Your task to perform on an android device: snooze an email in the gmail app Image 0: 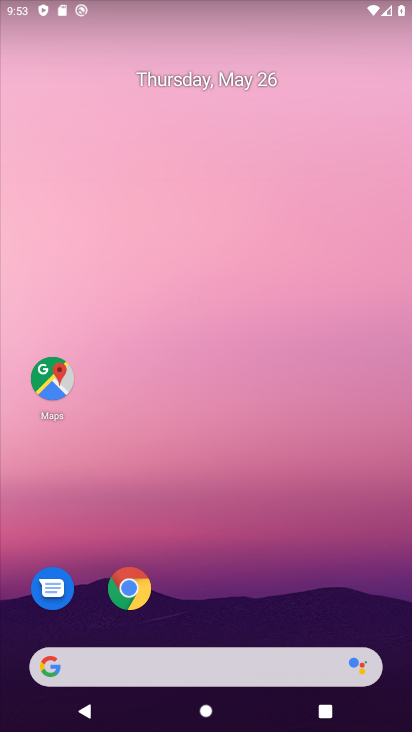
Step 0: drag from (207, 552) to (204, 132)
Your task to perform on an android device: snooze an email in the gmail app Image 1: 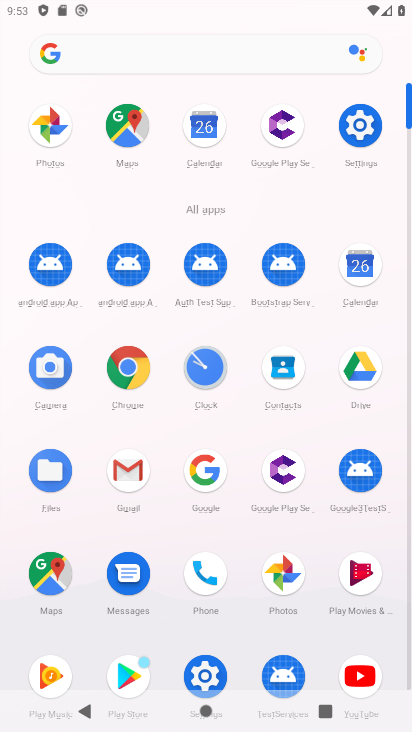
Step 1: click (143, 477)
Your task to perform on an android device: snooze an email in the gmail app Image 2: 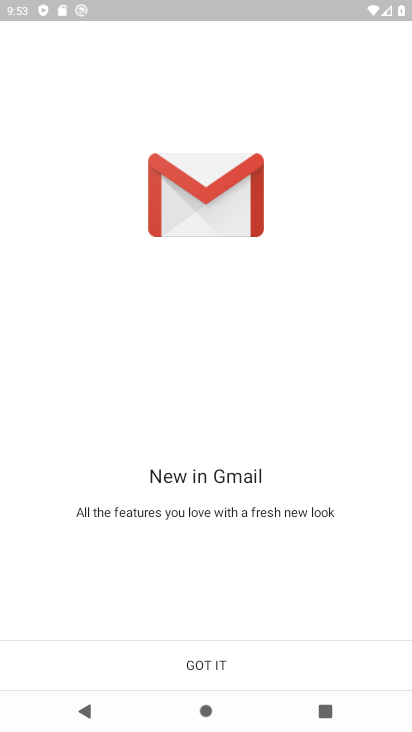
Step 2: click (192, 664)
Your task to perform on an android device: snooze an email in the gmail app Image 3: 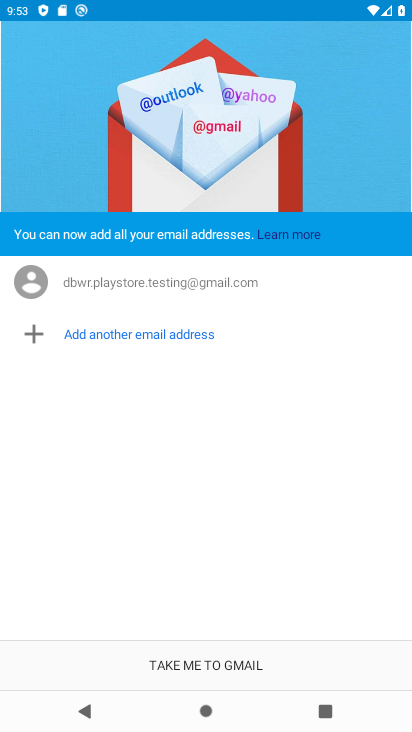
Step 3: click (192, 664)
Your task to perform on an android device: snooze an email in the gmail app Image 4: 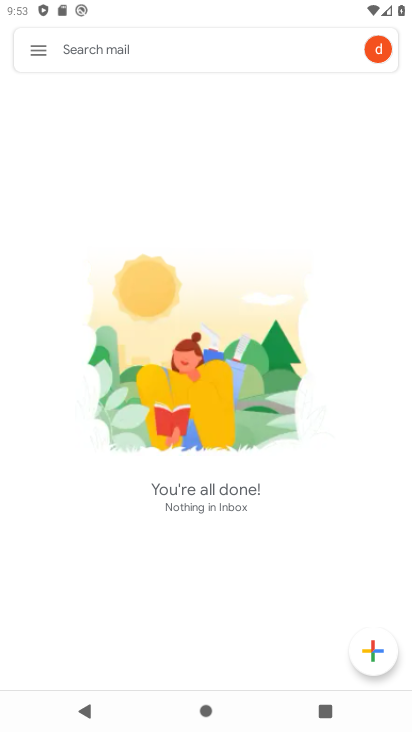
Step 4: click (38, 49)
Your task to perform on an android device: snooze an email in the gmail app Image 5: 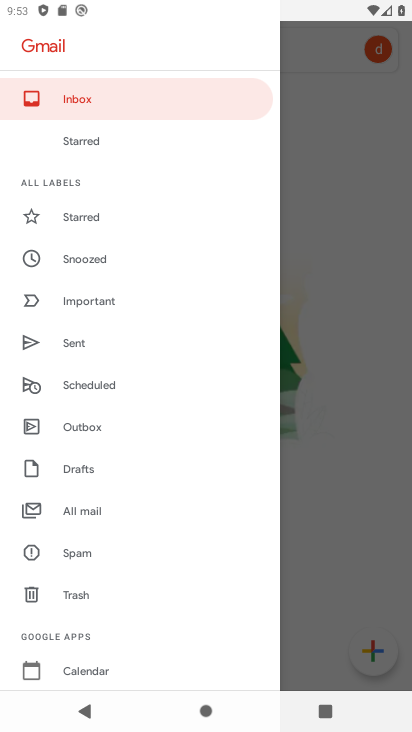
Step 5: click (73, 260)
Your task to perform on an android device: snooze an email in the gmail app Image 6: 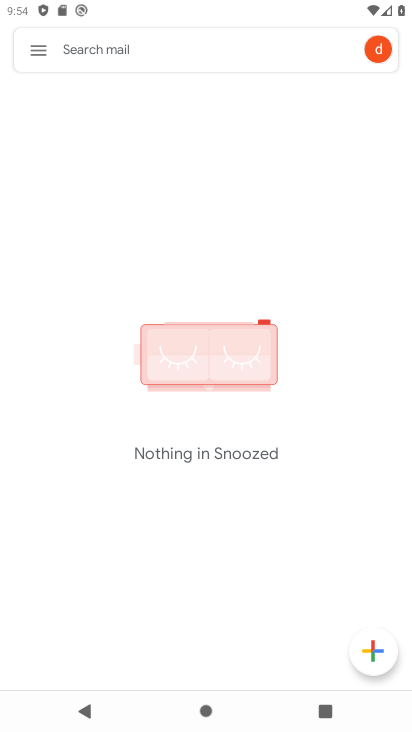
Step 6: task complete